Your task to perform on an android device: Open display settings Image 0: 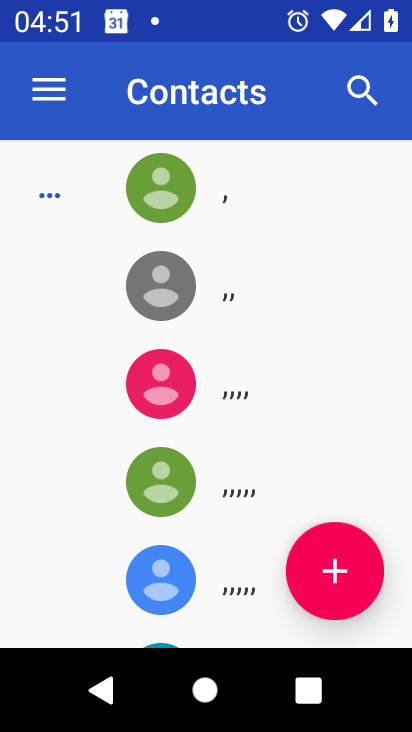
Step 0: drag from (229, 518) to (242, 315)
Your task to perform on an android device: Open display settings Image 1: 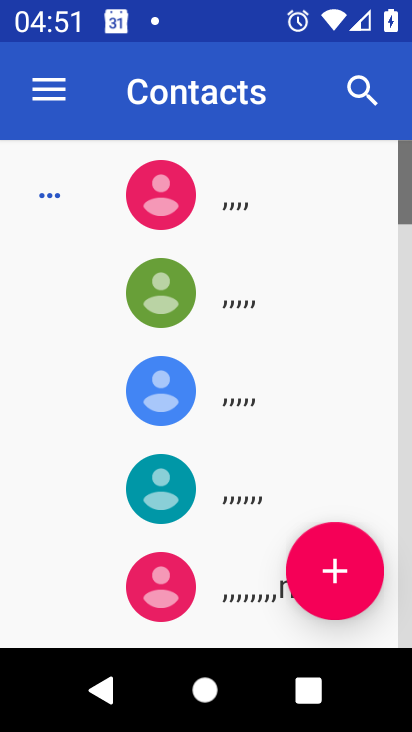
Step 1: press home button
Your task to perform on an android device: Open display settings Image 2: 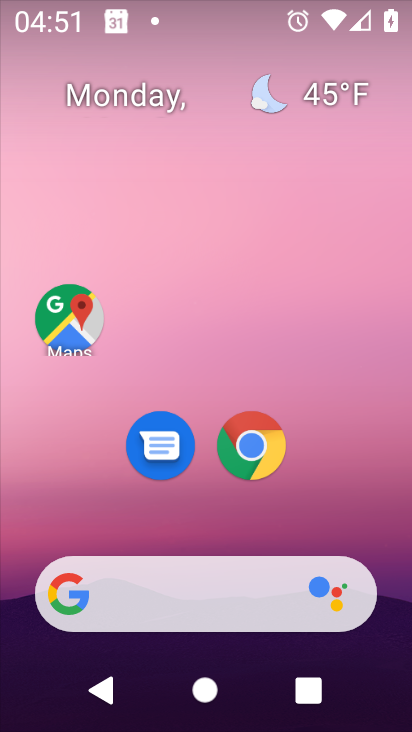
Step 2: drag from (259, 472) to (259, 26)
Your task to perform on an android device: Open display settings Image 3: 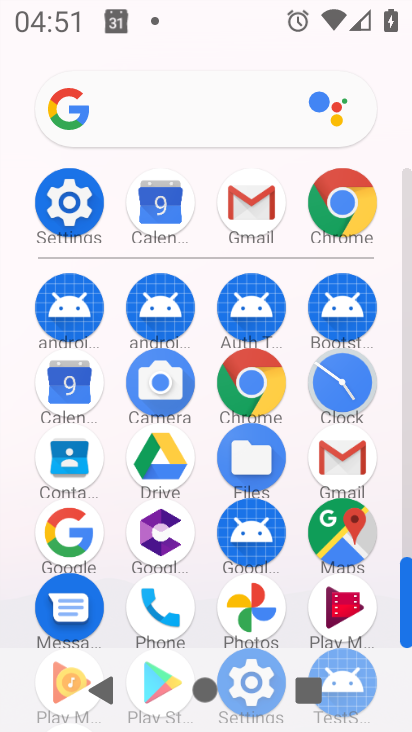
Step 3: click (81, 205)
Your task to perform on an android device: Open display settings Image 4: 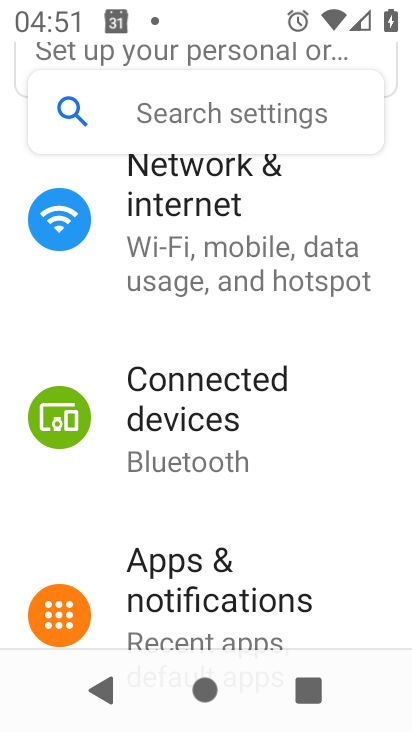
Step 4: drag from (189, 424) to (186, 53)
Your task to perform on an android device: Open display settings Image 5: 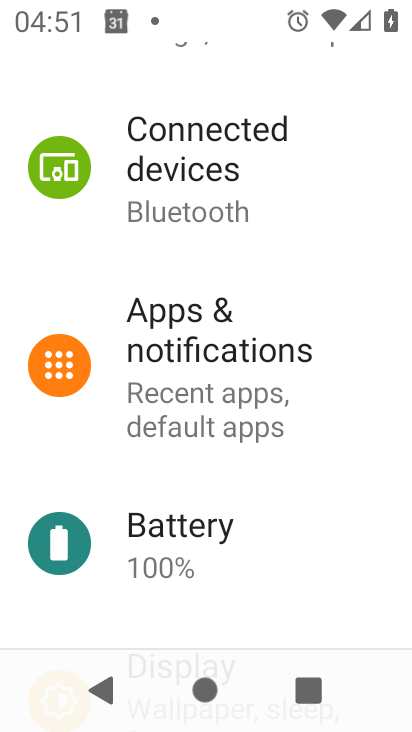
Step 5: drag from (206, 451) to (201, 103)
Your task to perform on an android device: Open display settings Image 6: 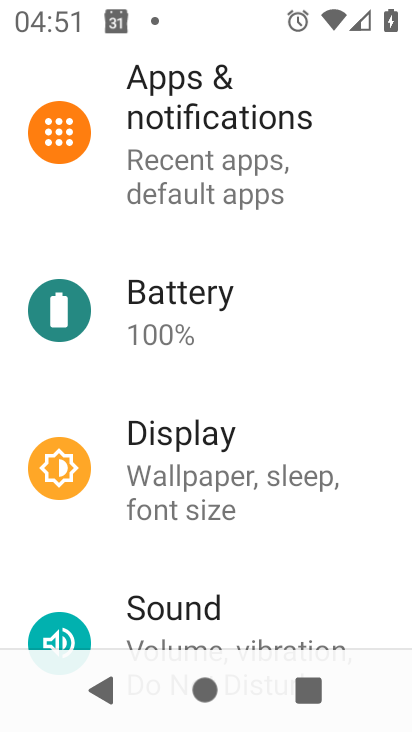
Step 6: click (170, 430)
Your task to perform on an android device: Open display settings Image 7: 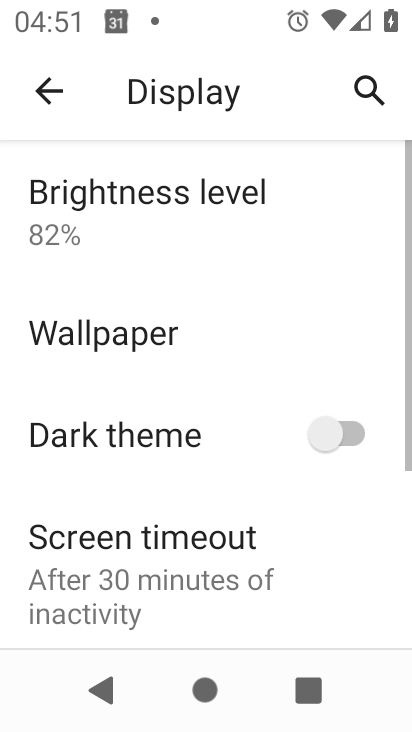
Step 7: task complete